Your task to perform on an android device: turn on notifications settings in the gmail app Image 0: 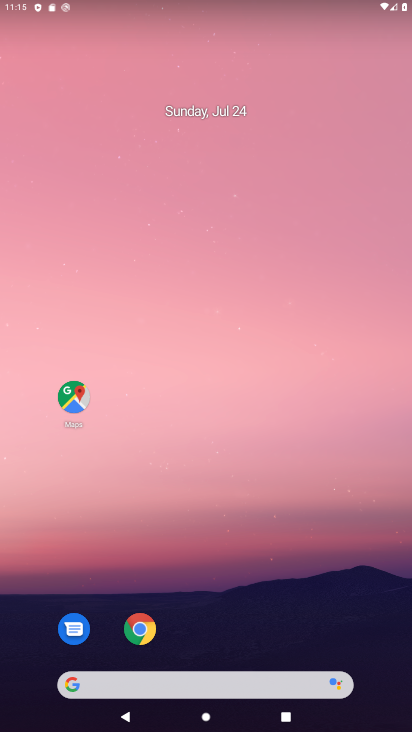
Step 0: drag from (234, 623) to (351, 66)
Your task to perform on an android device: turn on notifications settings in the gmail app Image 1: 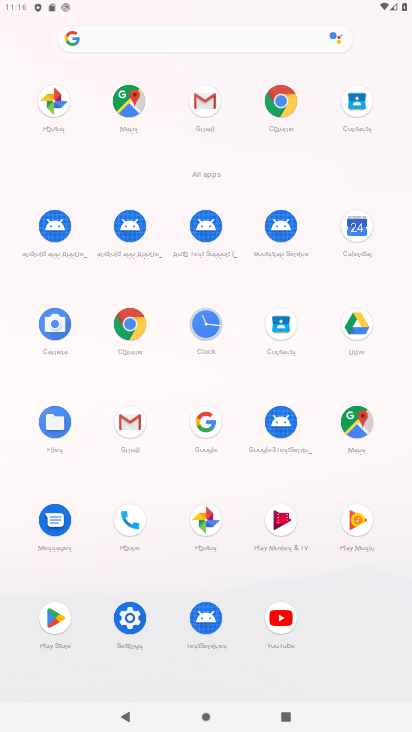
Step 1: click (131, 632)
Your task to perform on an android device: turn on notifications settings in the gmail app Image 2: 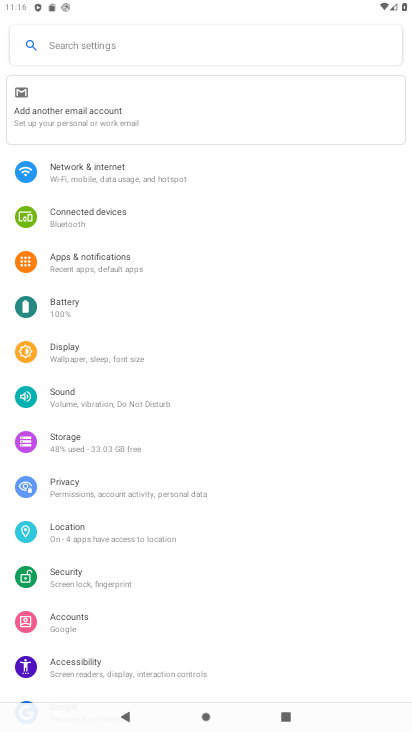
Step 2: click (151, 262)
Your task to perform on an android device: turn on notifications settings in the gmail app Image 3: 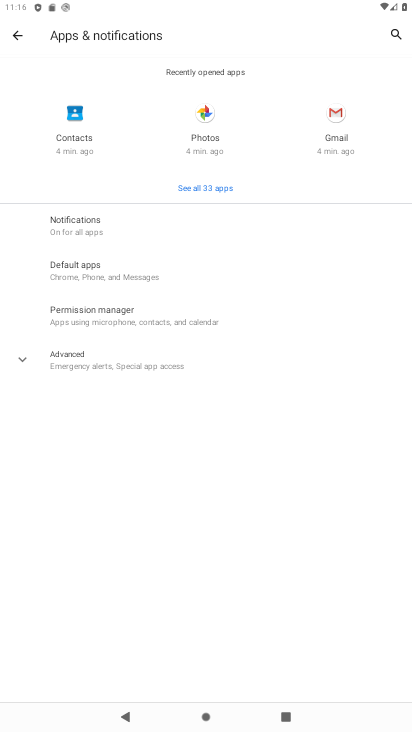
Step 3: click (97, 245)
Your task to perform on an android device: turn on notifications settings in the gmail app Image 4: 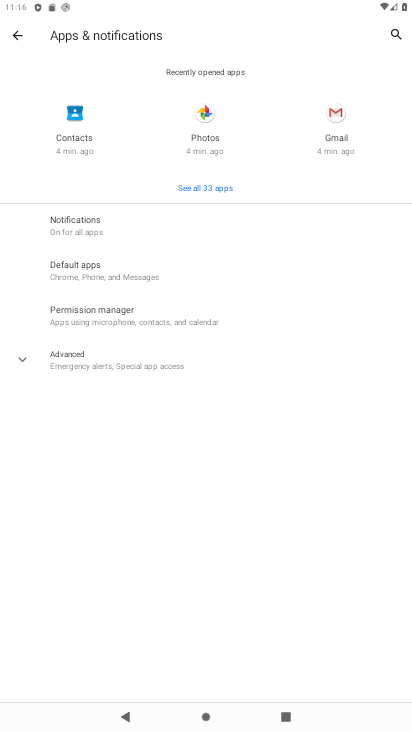
Step 4: click (97, 234)
Your task to perform on an android device: turn on notifications settings in the gmail app Image 5: 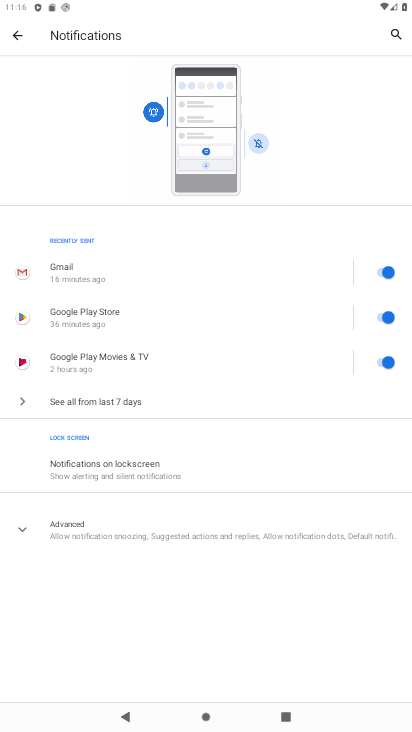
Step 5: click (250, 469)
Your task to perform on an android device: turn on notifications settings in the gmail app Image 6: 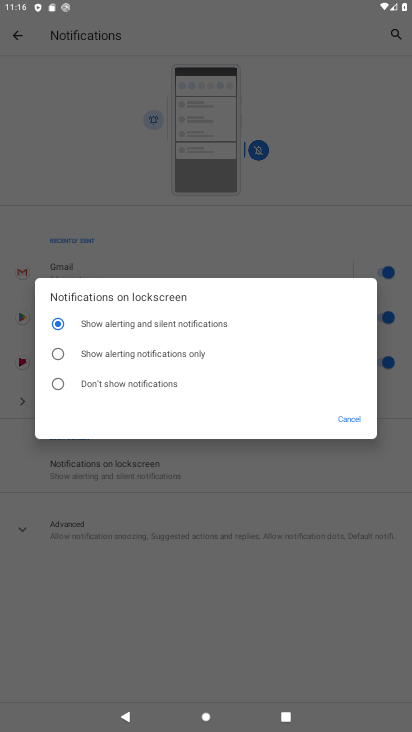
Step 6: task complete